Your task to perform on an android device: Open Google Chrome and click the shortcut for Amazon.com Image 0: 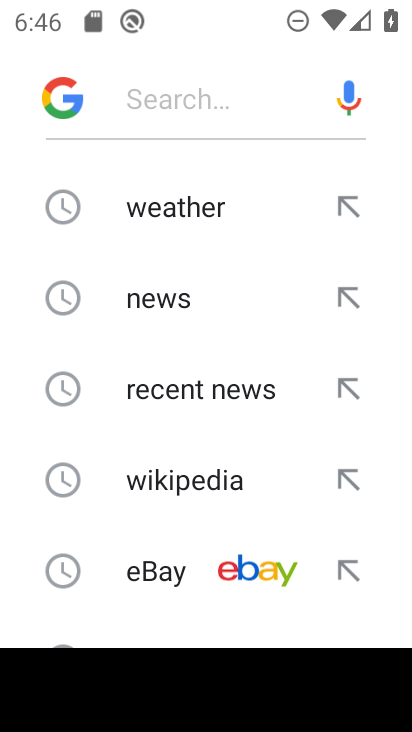
Step 0: press home button
Your task to perform on an android device: Open Google Chrome and click the shortcut for Amazon.com Image 1: 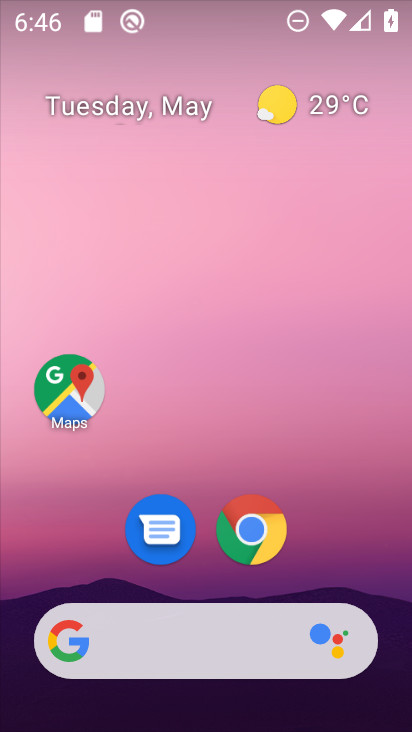
Step 1: drag from (396, 564) to (298, 106)
Your task to perform on an android device: Open Google Chrome and click the shortcut for Amazon.com Image 2: 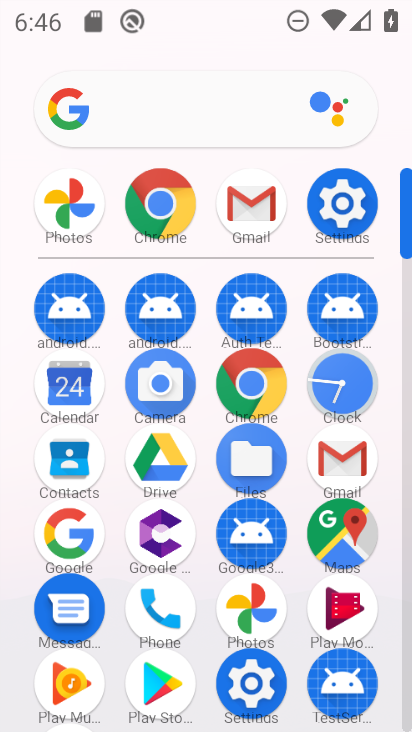
Step 2: click (254, 363)
Your task to perform on an android device: Open Google Chrome and click the shortcut for Amazon.com Image 3: 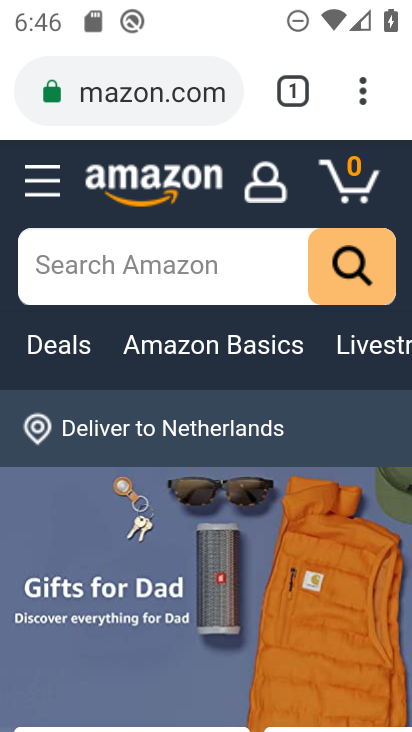
Step 3: press back button
Your task to perform on an android device: Open Google Chrome and click the shortcut for Amazon.com Image 4: 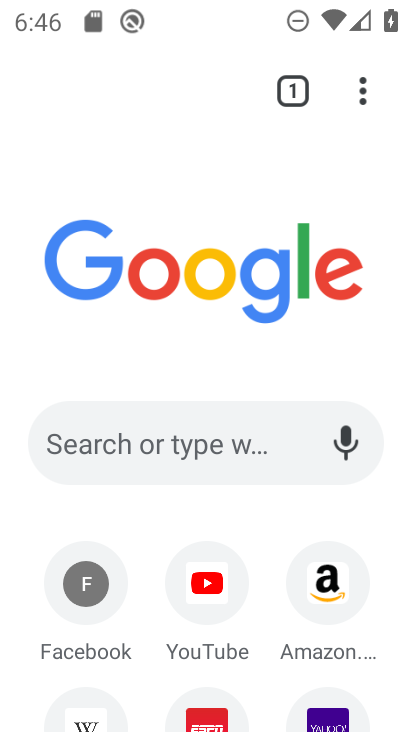
Step 4: click (336, 571)
Your task to perform on an android device: Open Google Chrome and click the shortcut for Amazon.com Image 5: 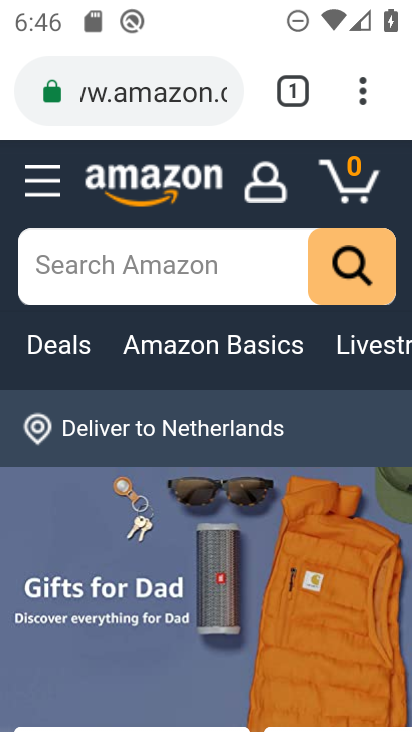
Step 5: task complete